Your task to perform on an android device: empty trash in the gmail app Image 0: 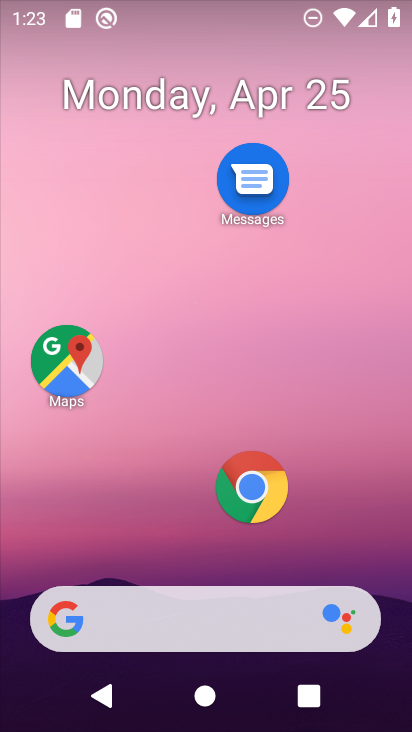
Step 0: drag from (180, 449) to (195, 4)
Your task to perform on an android device: empty trash in the gmail app Image 1: 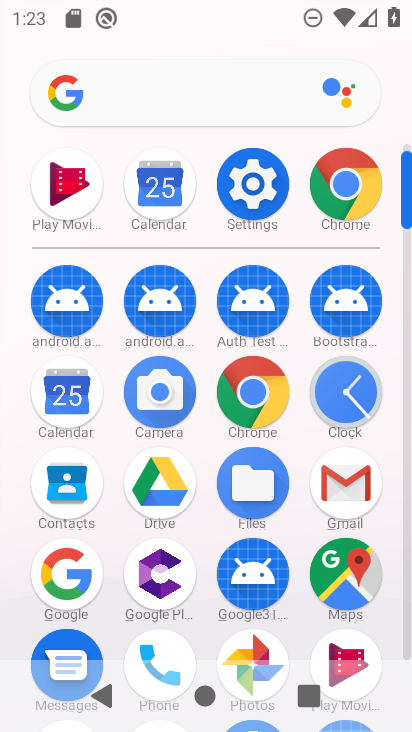
Step 1: click (344, 487)
Your task to perform on an android device: empty trash in the gmail app Image 2: 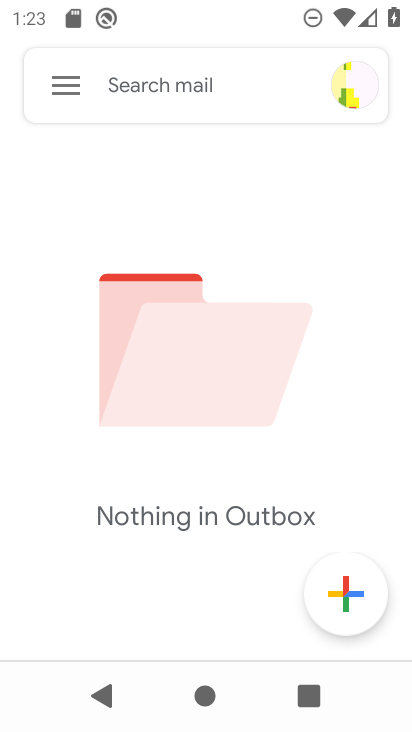
Step 2: click (76, 97)
Your task to perform on an android device: empty trash in the gmail app Image 3: 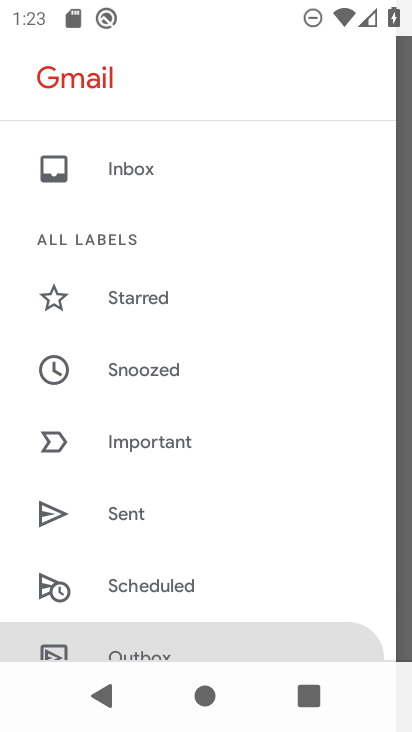
Step 3: drag from (169, 594) to (228, 80)
Your task to perform on an android device: empty trash in the gmail app Image 4: 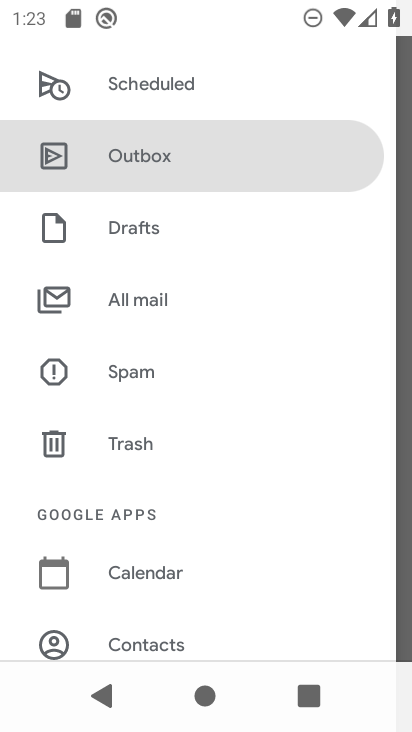
Step 4: click (130, 461)
Your task to perform on an android device: empty trash in the gmail app Image 5: 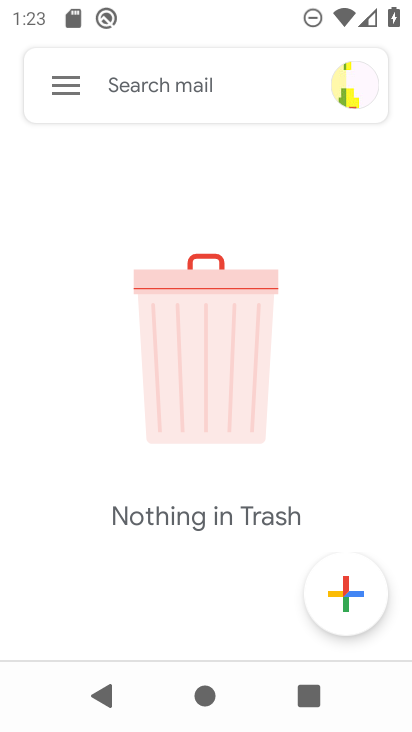
Step 5: task complete